Your task to perform on an android device: Go to wifi settings Image 0: 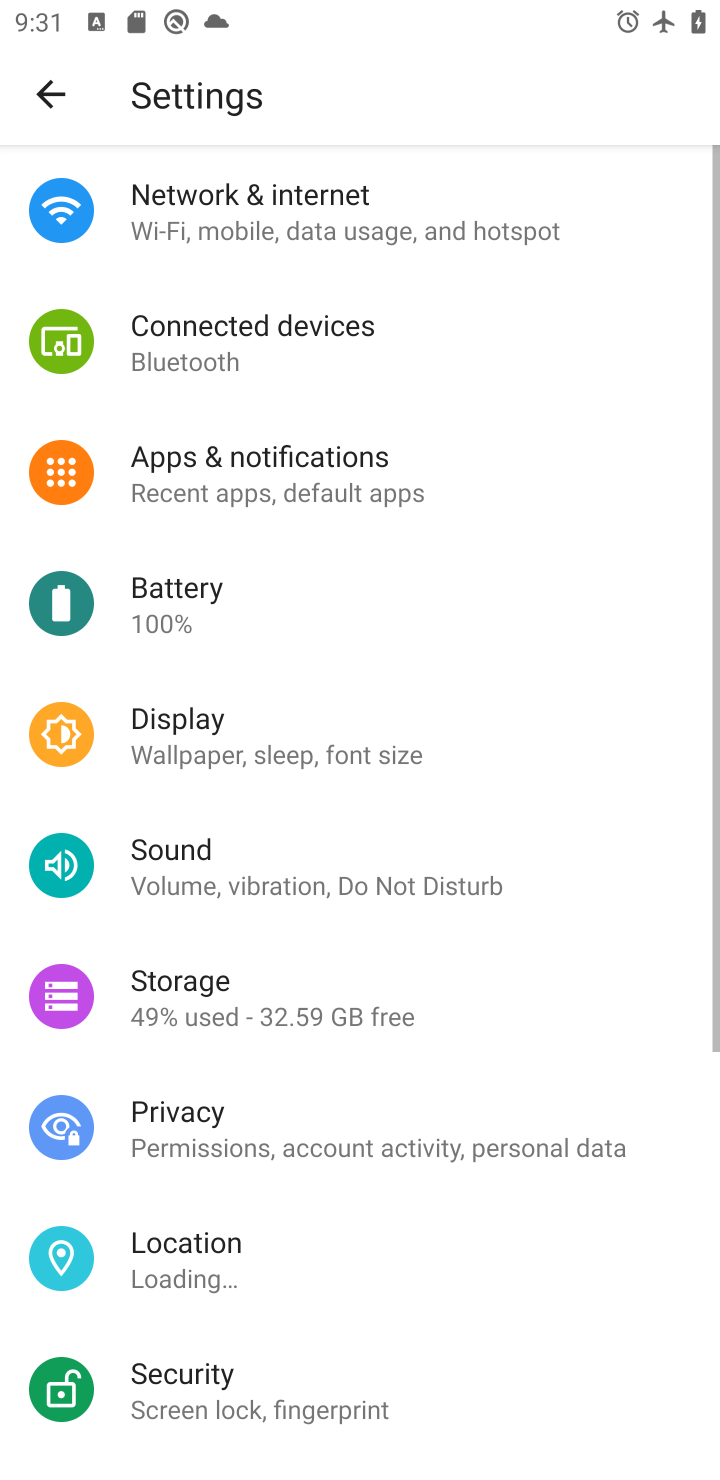
Step 0: drag from (381, 16) to (307, 1312)
Your task to perform on an android device: Go to wifi settings Image 1: 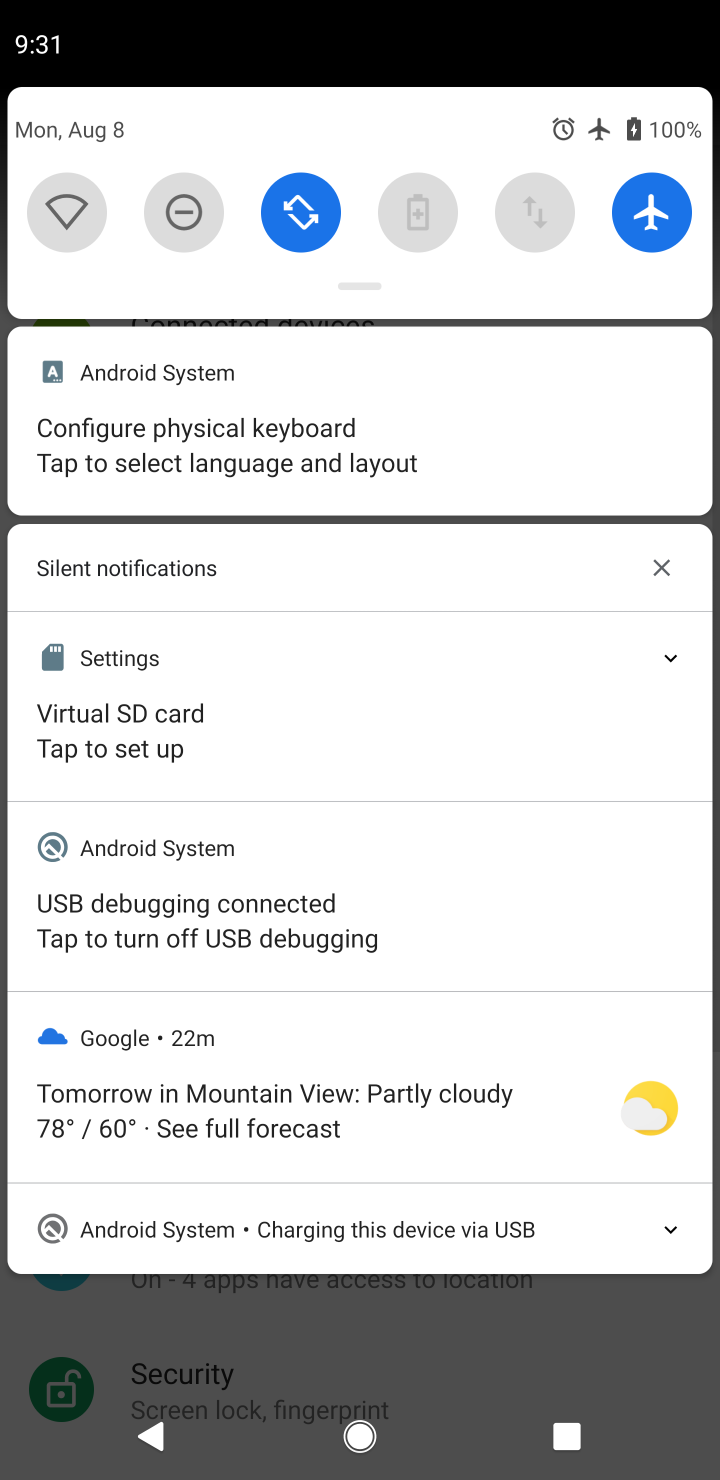
Step 1: click (284, 1347)
Your task to perform on an android device: Go to wifi settings Image 2: 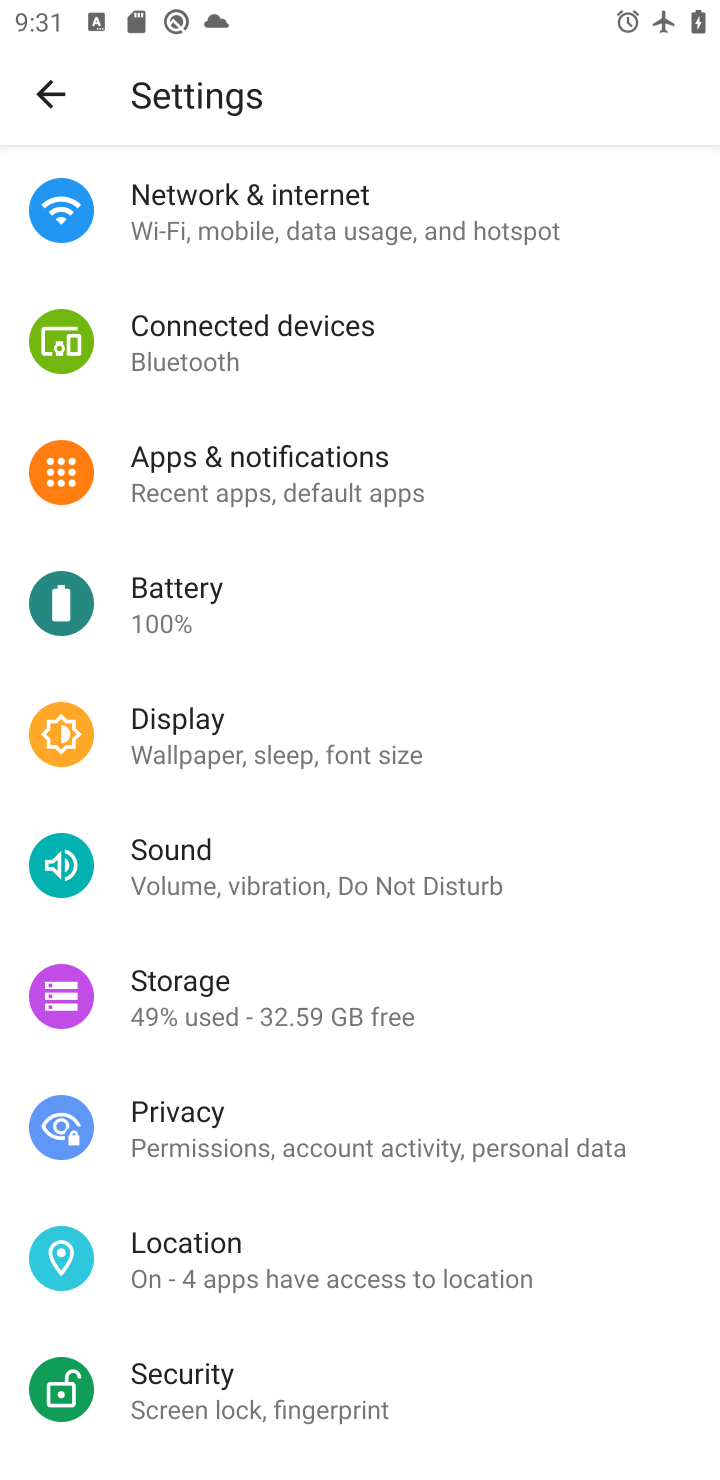
Step 2: click (434, 239)
Your task to perform on an android device: Go to wifi settings Image 3: 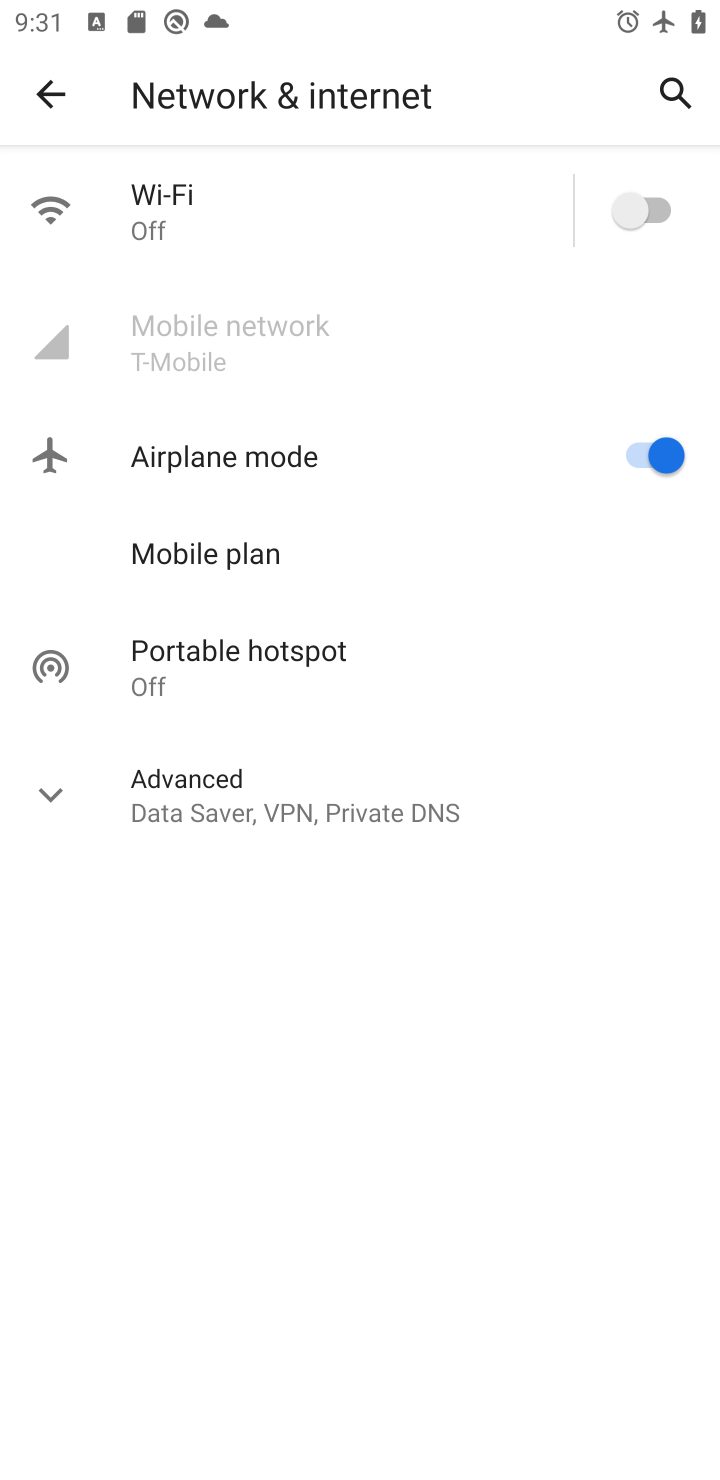
Step 3: click (364, 181)
Your task to perform on an android device: Go to wifi settings Image 4: 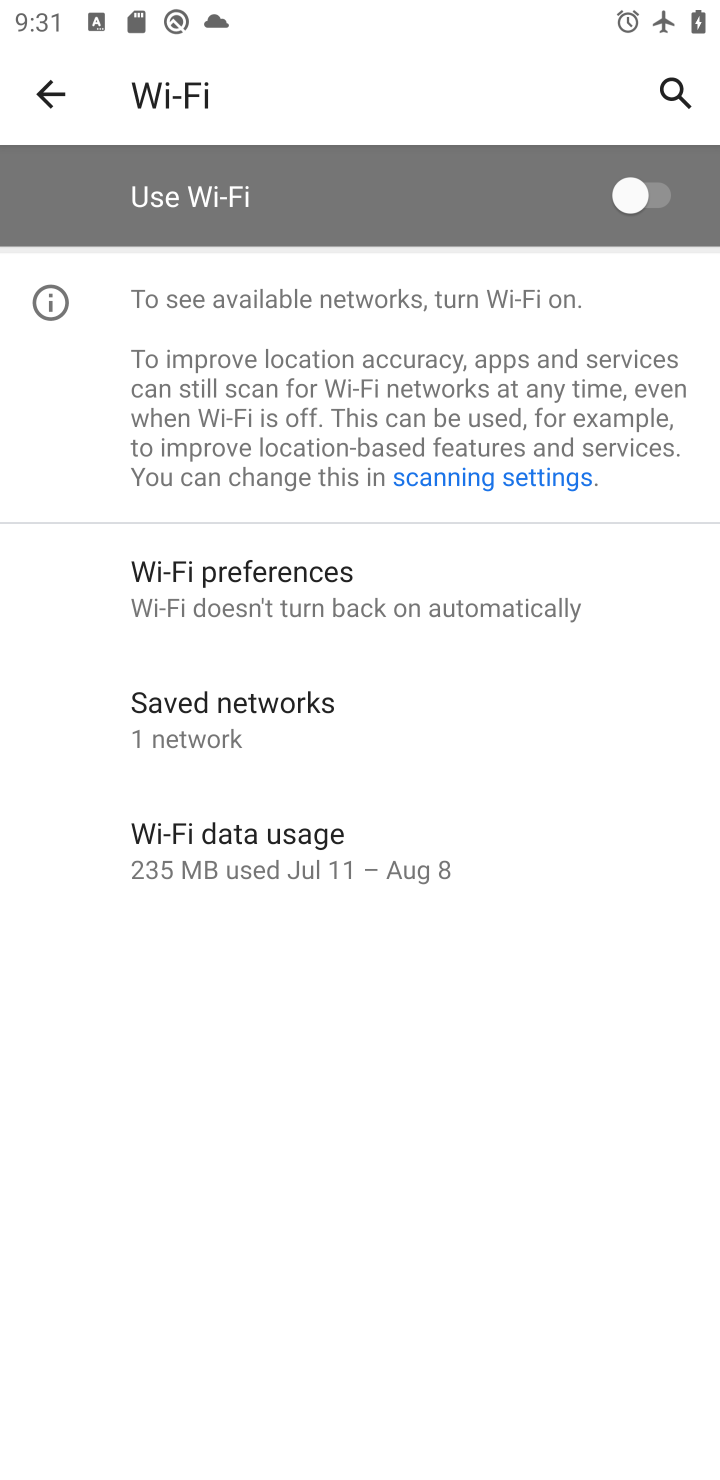
Step 4: task complete